Your task to perform on an android device: change your default location settings in chrome Image 0: 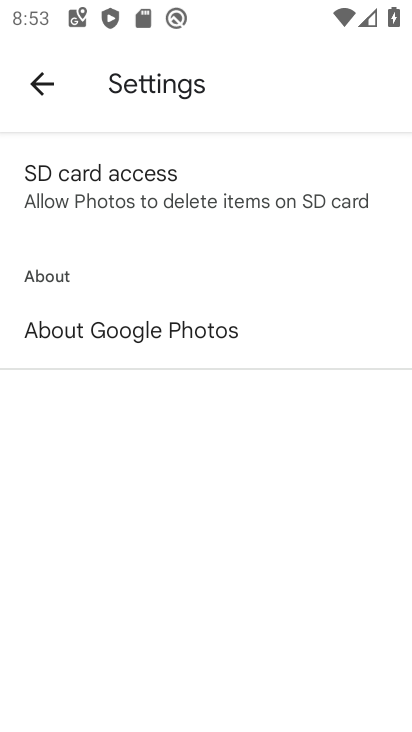
Step 0: press home button
Your task to perform on an android device: change your default location settings in chrome Image 1: 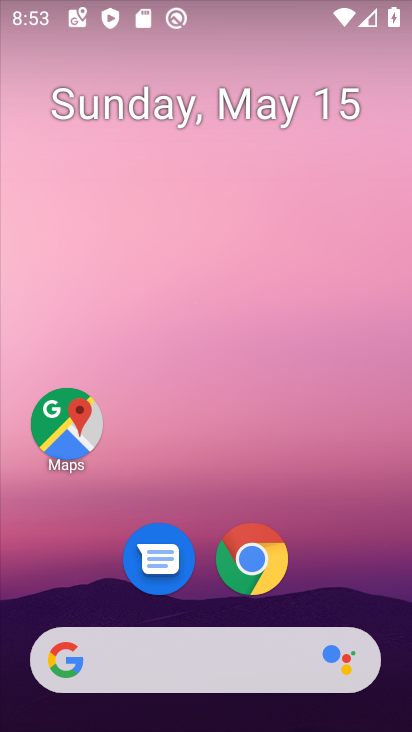
Step 1: click (261, 558)
Your task to perform on an android device: change your default location settings in chrome Image 2: 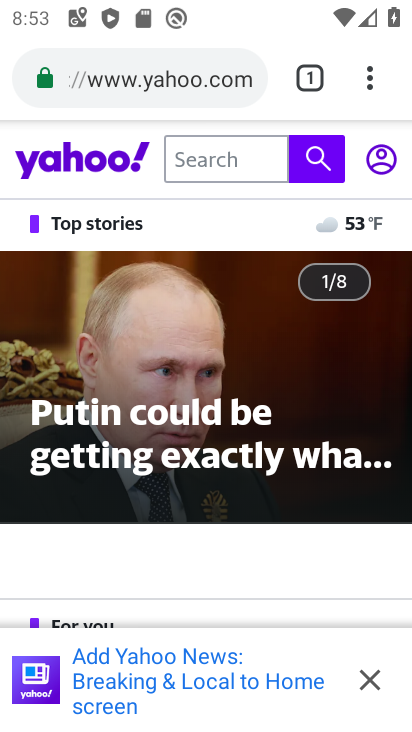
Step 2: click (368, 78)
Your task to perform on an android device: change your default location settings in chrome Image 3: 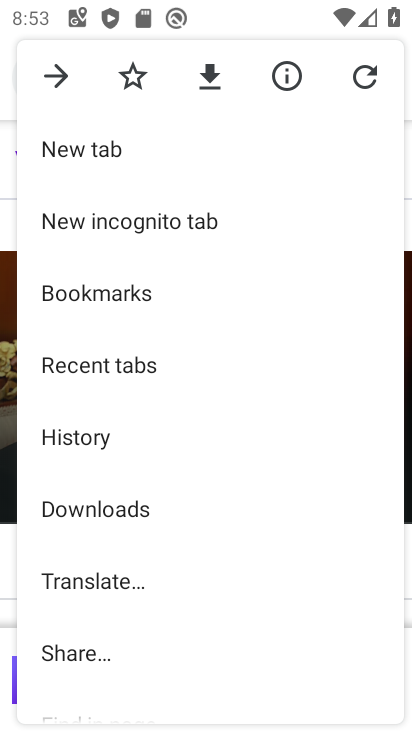
Step 3: drag from (224, 578) to (236, 310)
Your task to perform on an android device: change your default location settings in chrome Image 4: 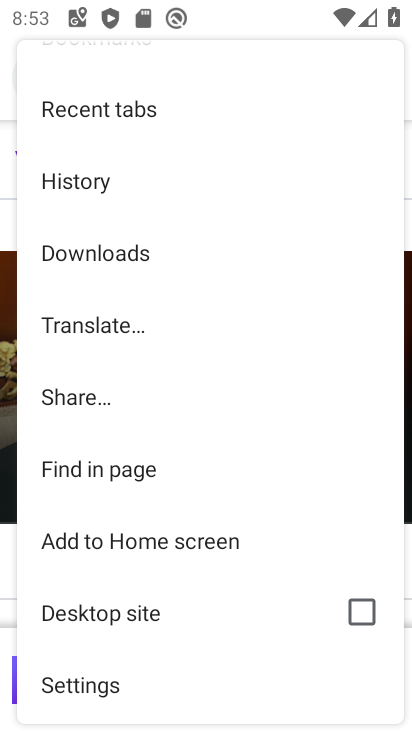
Step 4: click (146, 690)
Your task to perform on an android device: change your default location settings in chrome Image 5: 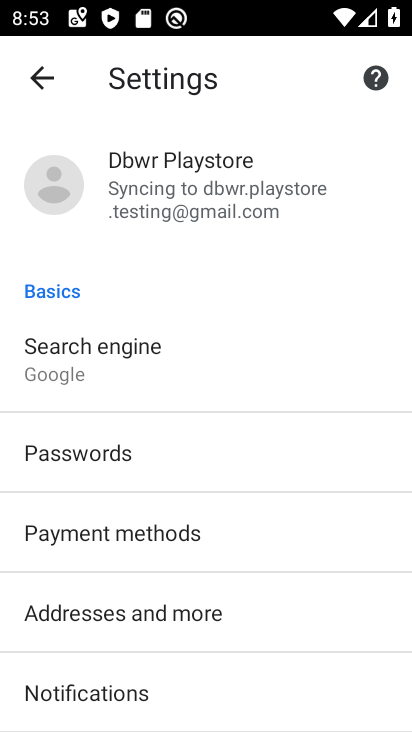
Step 5: click (187, 645)
Your task to perform on an android device: change your default location settings in chrome Image 6: 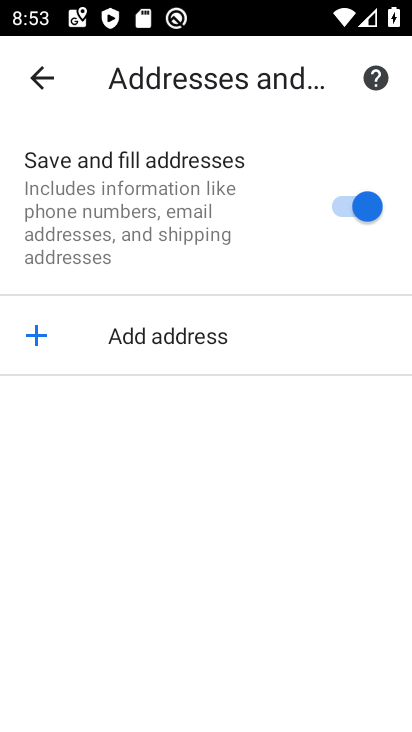
Step 6: task complete